Your task to perform on an android device: Clear the cart on ebay.com. Add "razer nari" to the cart on ebay.com, then select checkout. Image 0: 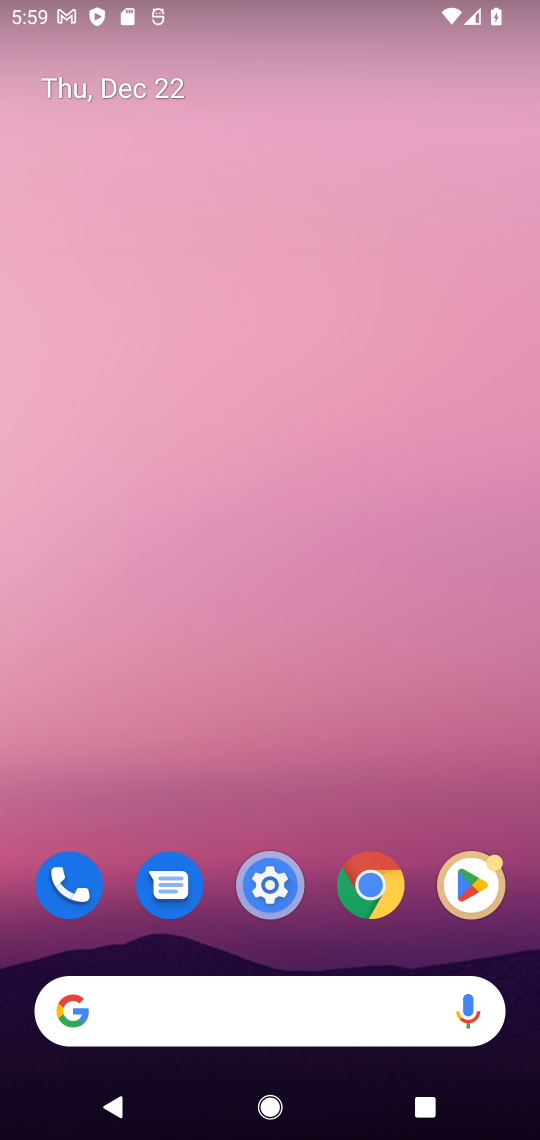
Step 0: click (371, 888)
Your task to perform on an android device: Clear the cart on ebay.com. Add "razer nari" to the cart on ebay.com, then select checkout. Image 1: 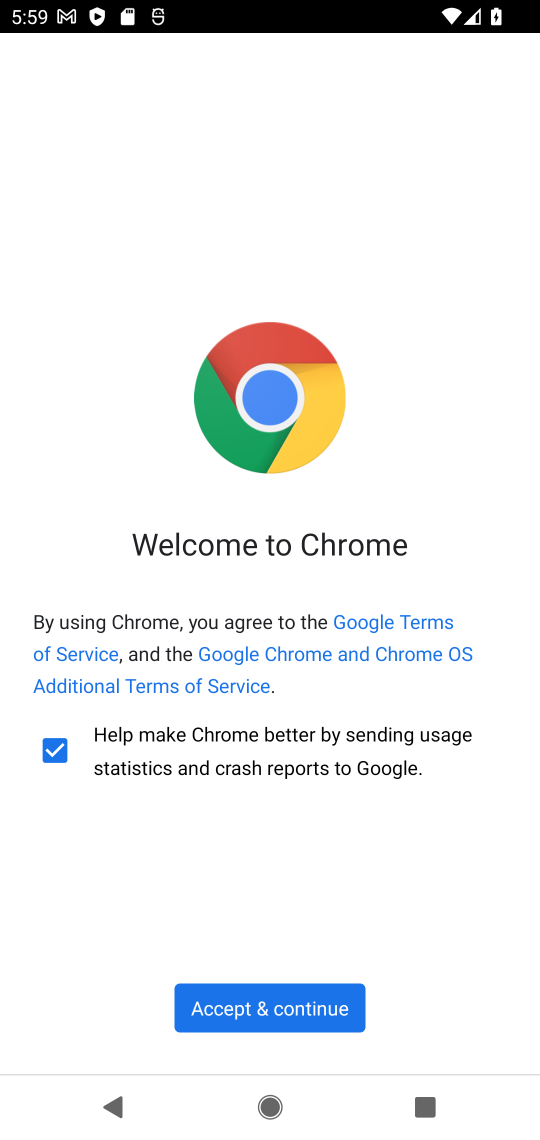
Step 1: click (225, 1008)
Your task to perform on an android device: Clear the cart on ebay.com. Add "razer nari" to the cart on ebay.com, then select checkout. Image 2: 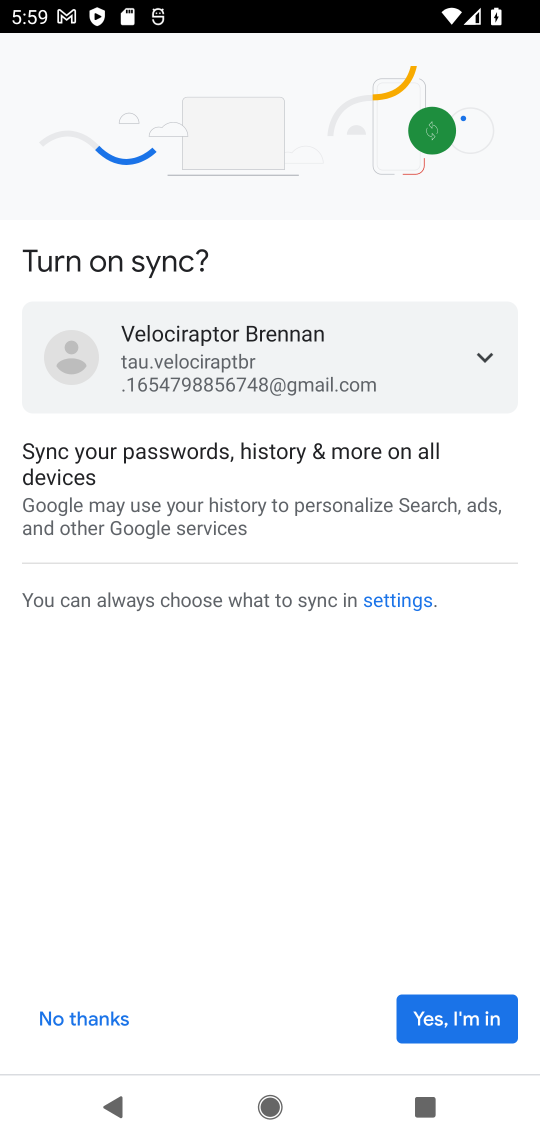
Step 2: click (59, 1021)
Your task to perform on an android device: Clear the cart on ebay.com. Add "razer nari" to the cart on ebay.com, then select checkout. Image 3: 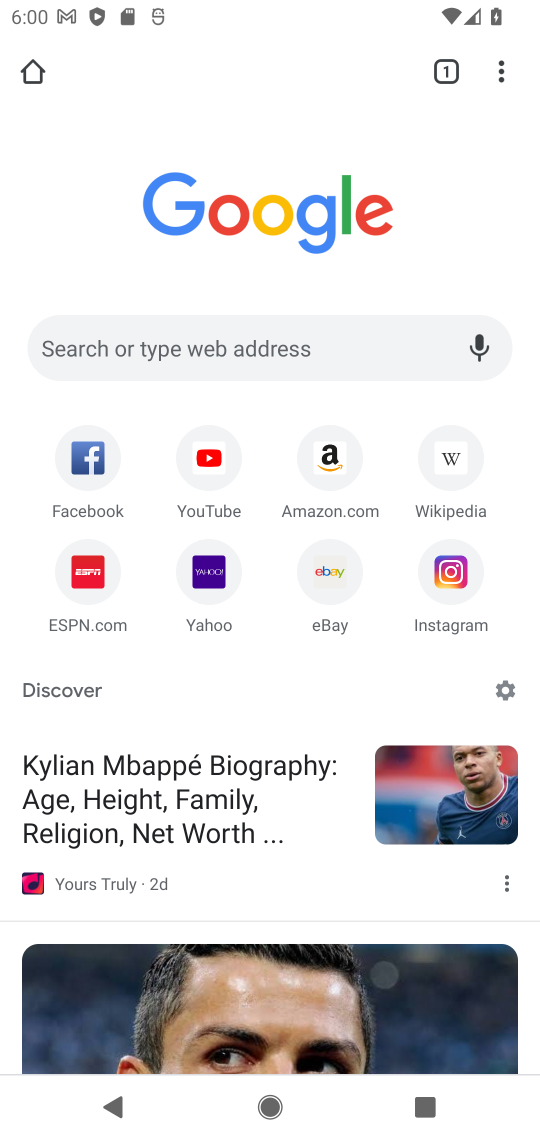
Step 3: click (317, 573)
Your task to perform on an android device: Clear the cart on ebay.com. Add "razer nari" to the cart on ebay.com, then select checkout. Image 4: 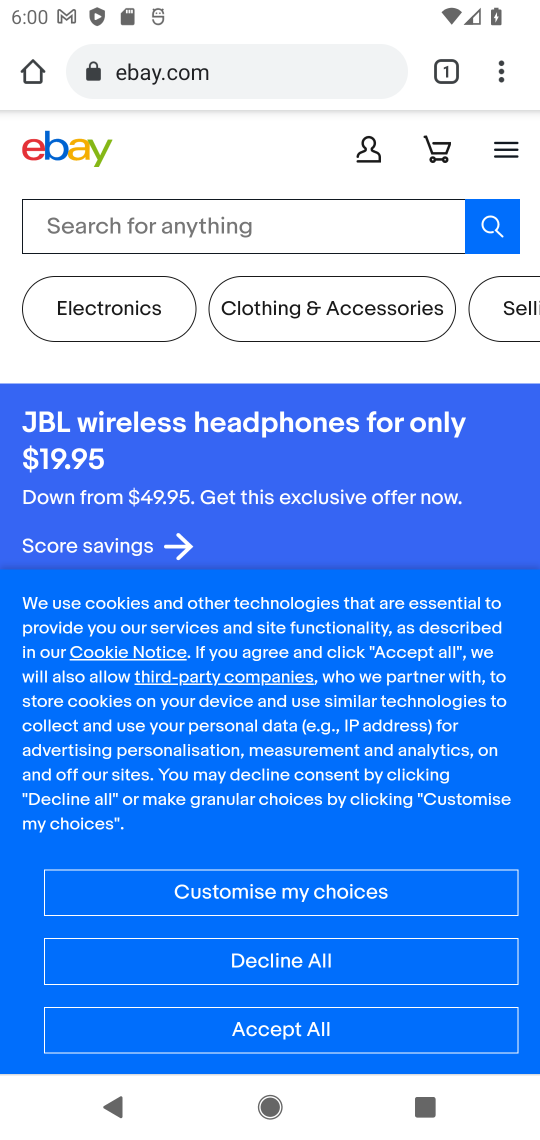
Step 4: click (438, 150)
Your task to perform on an android device: Clear the cart on ebay.com. Add "razer nari" to the cart on ebay.com, then select checkout. Image 5: 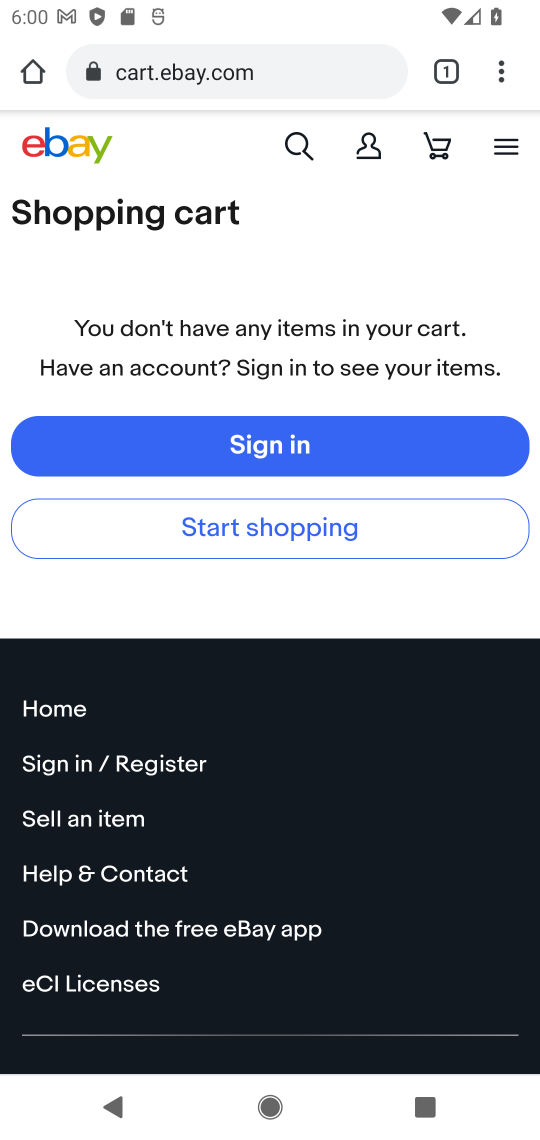
Step 5: click (295, 154)
Your task to perform on an android device: Clear the cart on ebay.com. Add "razer nari" to the cart on ebay.com, then select checkout. Image 6: 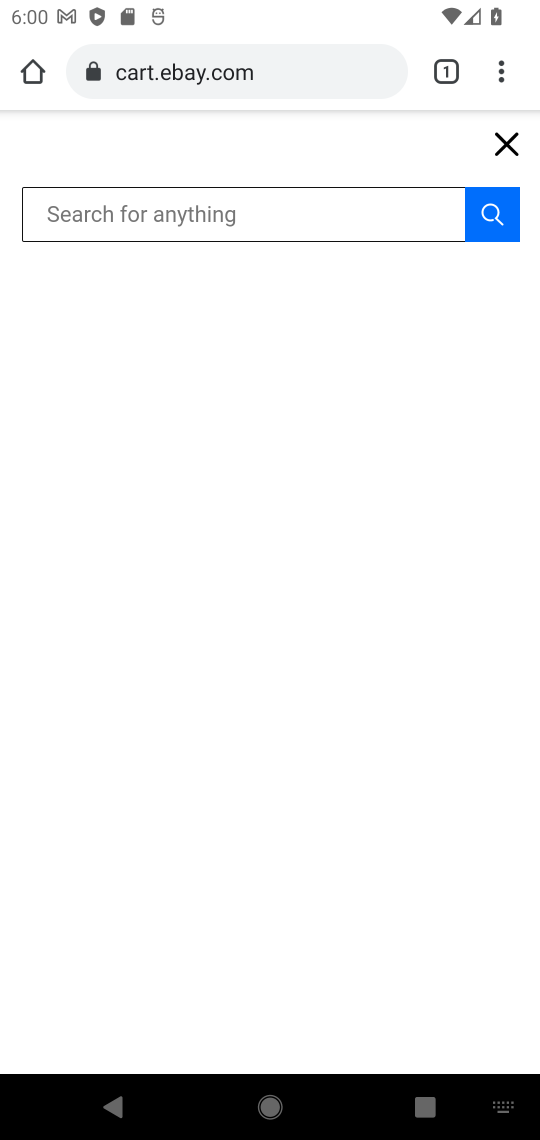
Step 6: type "razer nari"
Your task to perform on an android device: Clear the cart on ebay.com. Add "razer nari" to the cart on ebay.com, then select checkout. Image 7: 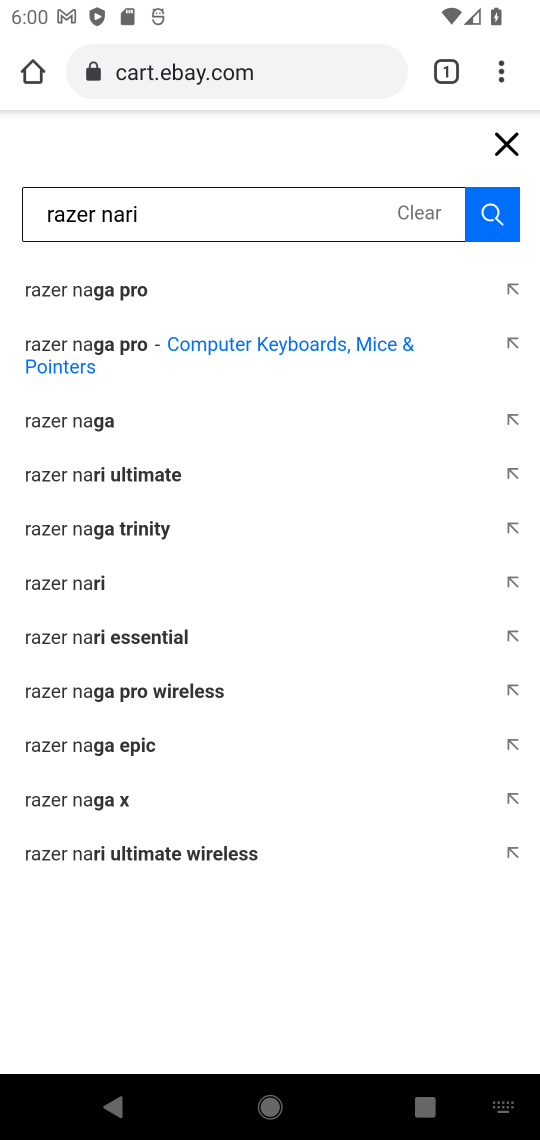
Step 7: click (491, 221)
Your task to perform on an android device: Clear the cart on ebay.com. Add "razer nari" to the cart on ebay.com, then select checkout. Image 8: 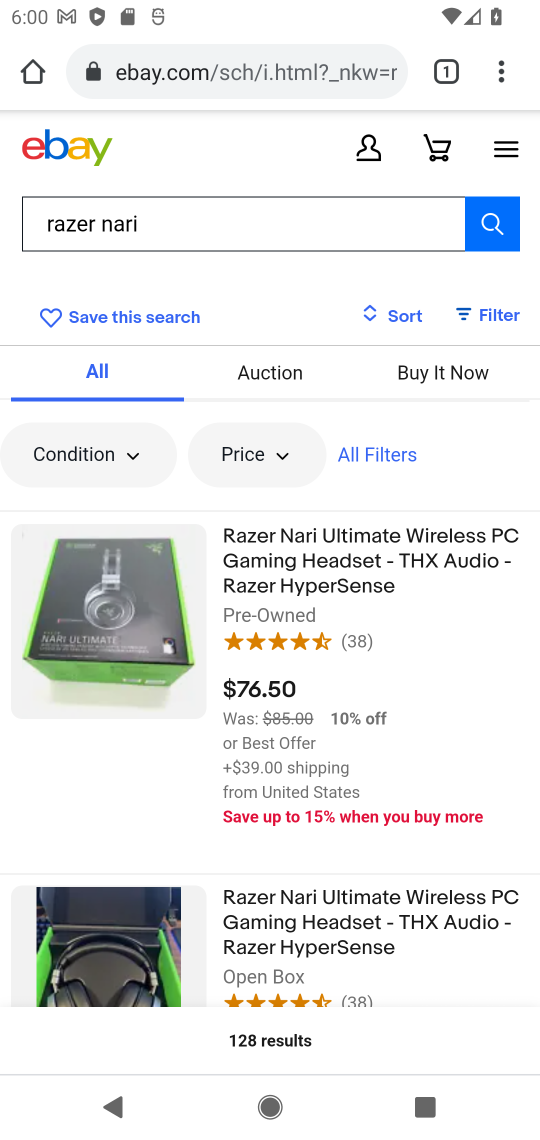
Step 8: click (278, 577)
Your task to perform on an android device: Clear the cart on ebay.com. Add "razer nari" to the cart on ebay.com, then select checkout. Image 9: 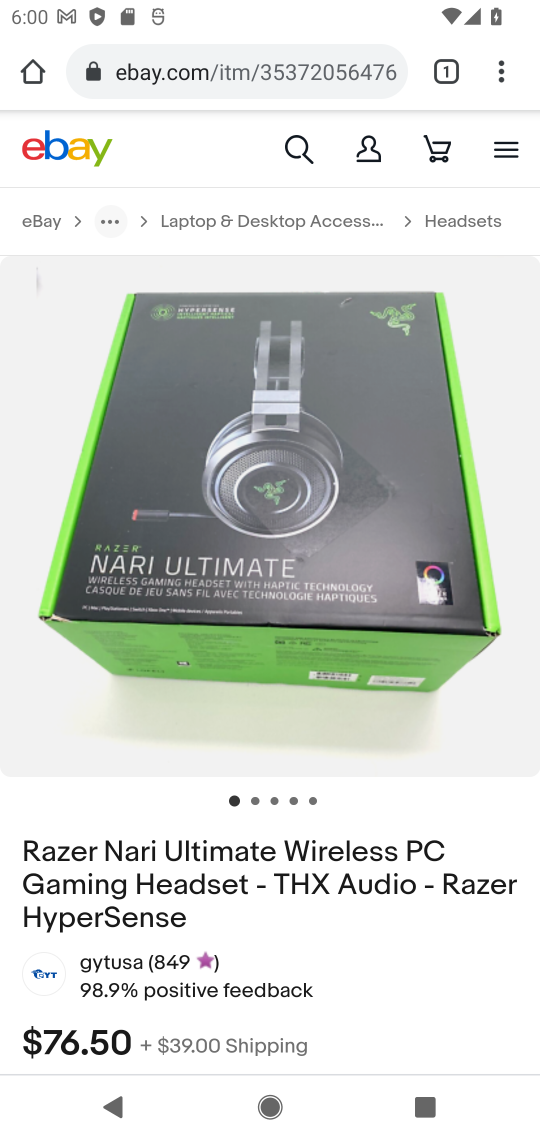
Step 9: drag from (243, 863) to (235, 400)
Your task to perform on an android device: Clear the cart on ebay.com. Add "razer nari" to the cart on ebay.com, then select checkout. Image 10: 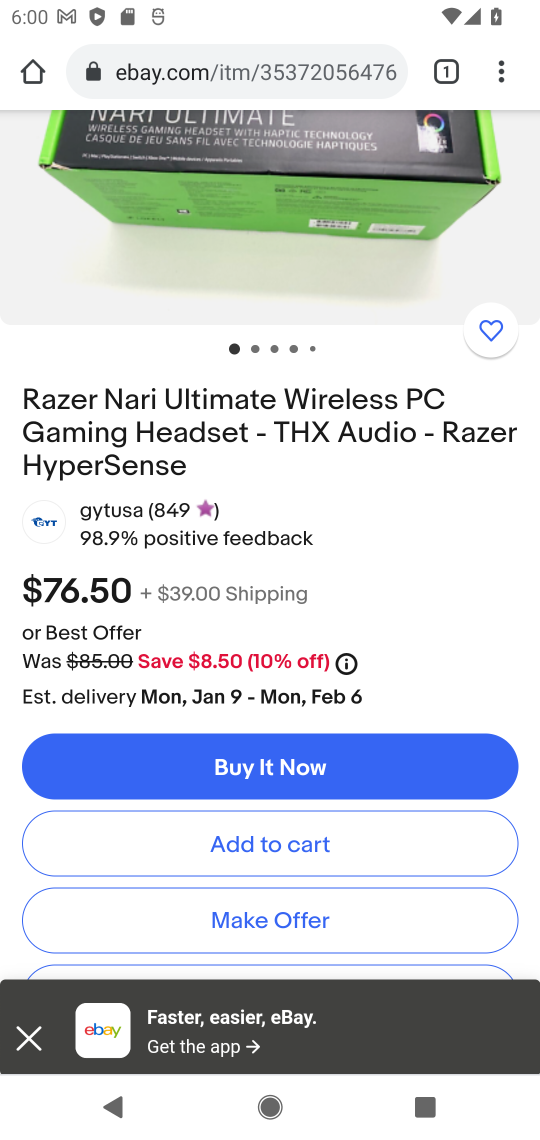
Step 10: click (235, 850)
Your task to perform on an android device: Clear the cart on ebay.com. Add "razer nari" to the cart on ebay.com, then select checkout. Image 11: 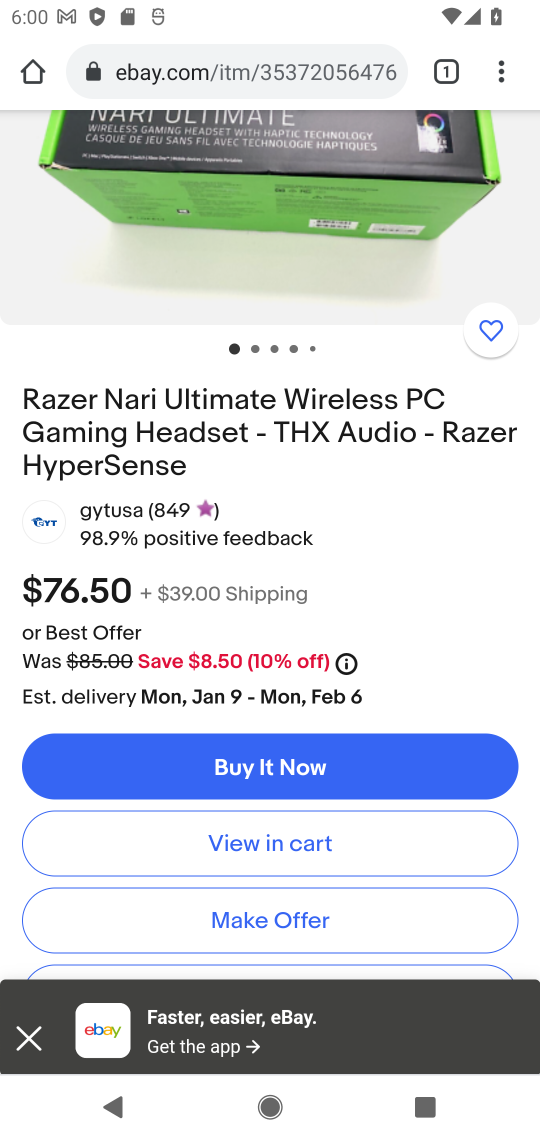
Step 11: click (235, 850)
Your task to perform on an android device: Clear the cart on ebay.com. Add "razer nari" to the cart on ebay.com, then select checkout. Image 12: 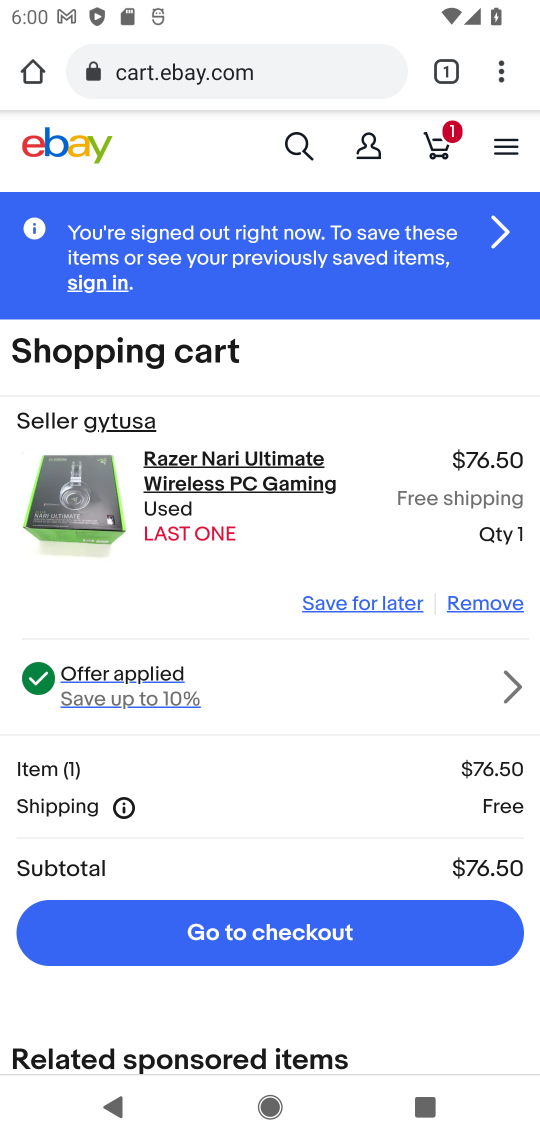
Step 12: click (258, 931)
Your task to perform on an android device: Clear the cart on ebay.com. Add "razer nari" to the cart on ebay.com, then select checkout. Image 13: 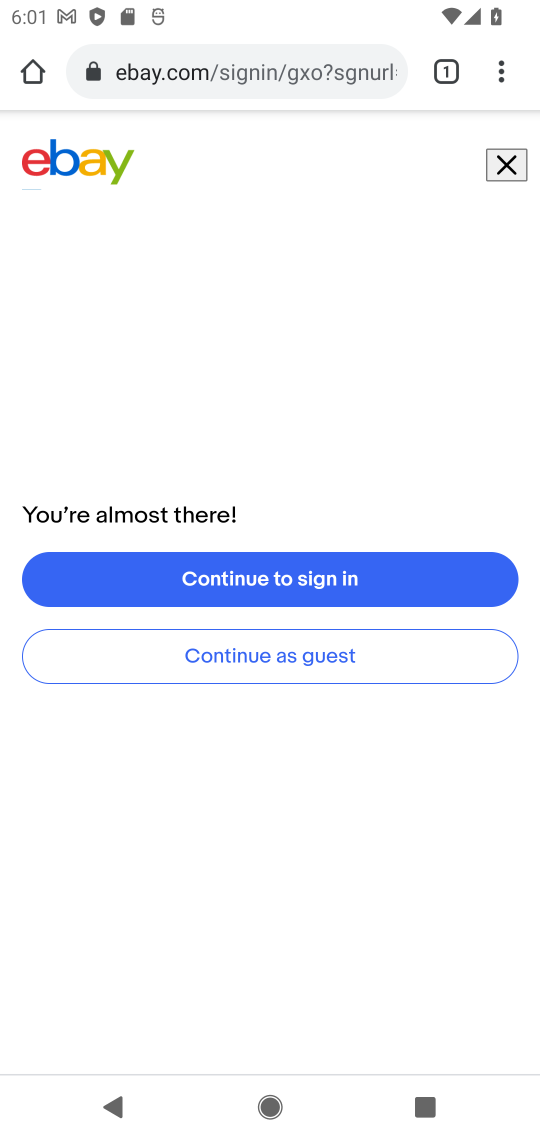
Step 13: task complete